Your task to perform on an android device: Open the calendar and show me this week's events? Image 0: 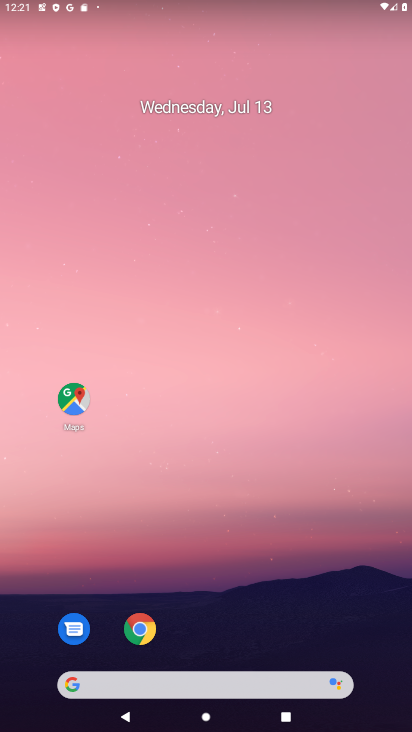
Step 0: click (218, 229)
Your task to perform on an android device: Open the calendar and show me this week's events? Image 1: 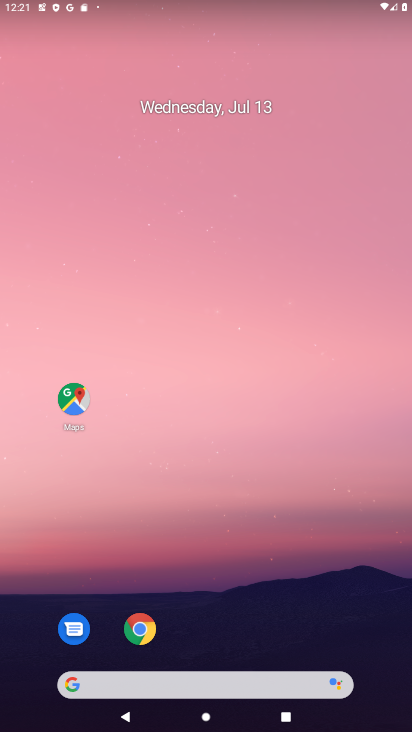
Step 1: drag from (282, 611) to (281, 158)
Your task to perform on an android device: Open the calendar and show me this week's events? Image 2: 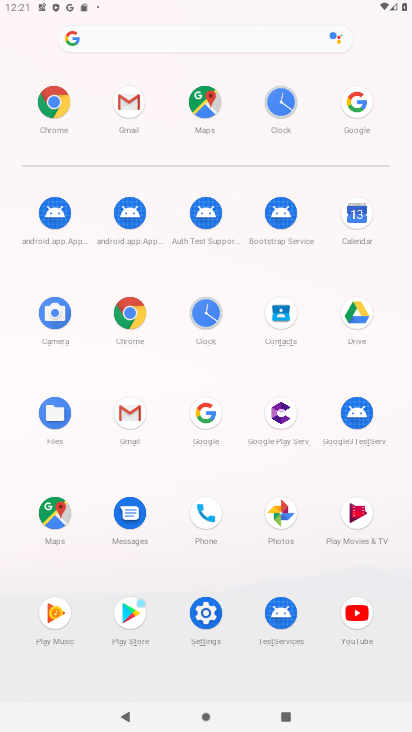
Step 2: drag from (225, 589) to (213, 131)
Your task to perform on an android device: Open the calendar and show me this week's events? Image 3: 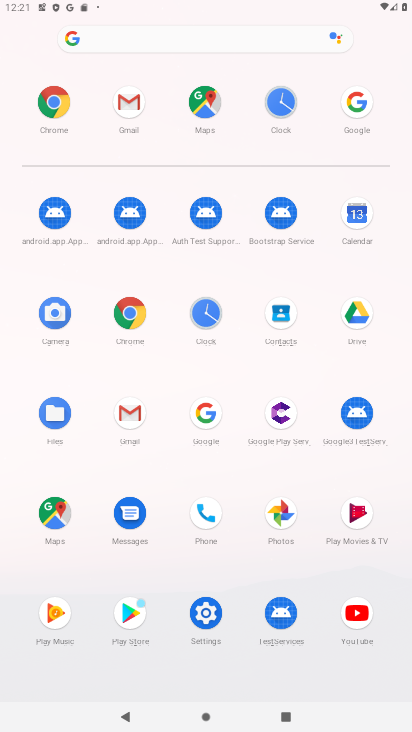
Step 3: click (367, 204)
Your task to perform on an android device: Open the calendar and show me this week's events? Image 4: 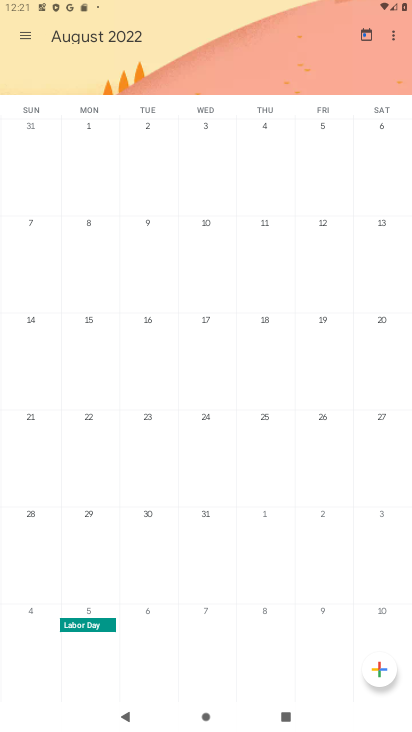
Step 4: drag from (24, 252) to (402, 303)
Your task to perform on an android device: Open the calendar and show me this week's events? Image 5: 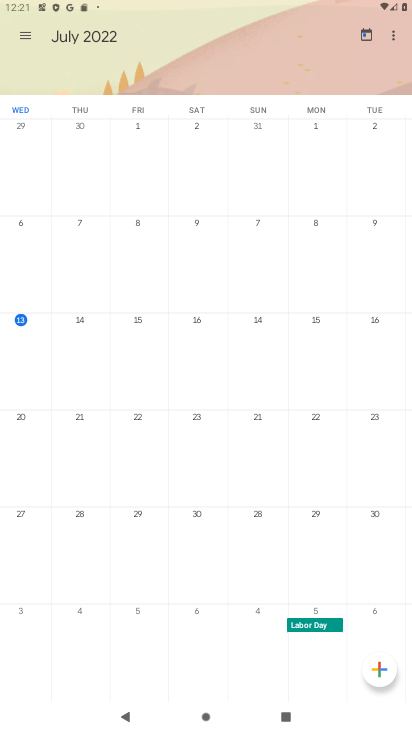
Step 5: drag from (390, 271) to (380, 235)
Your task to perform on an android device: Open the calendar and show me this week's events? Image 6: 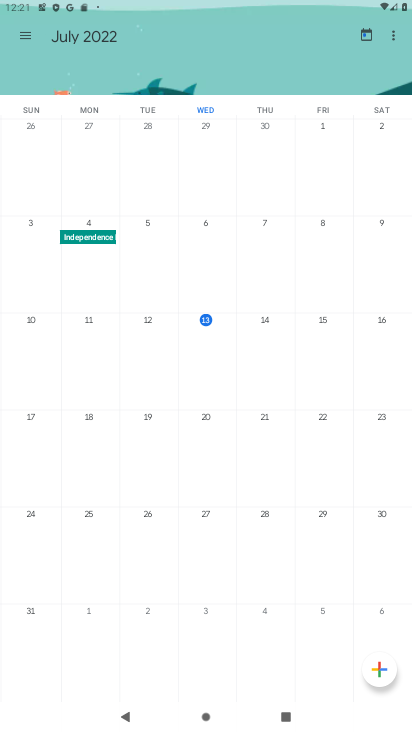
Step 6: click (19, 27)
Your task to perform on an android device: Open the calendar and show me this week's events? Image 7: 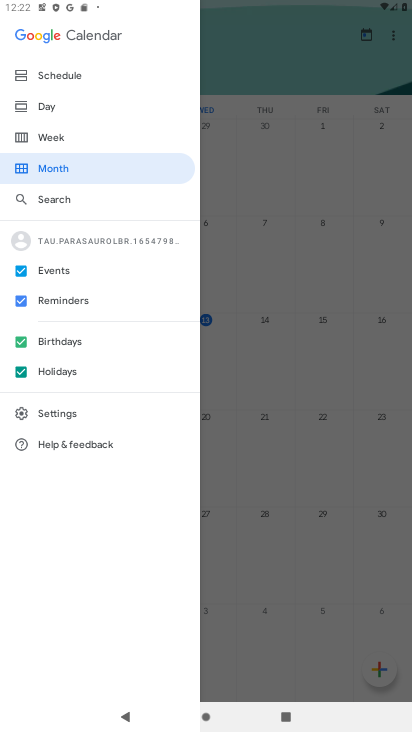
Step 7: click (65, 137)
Your task to perform on an android device: Open the calendar and show me this week's events? Image 8: 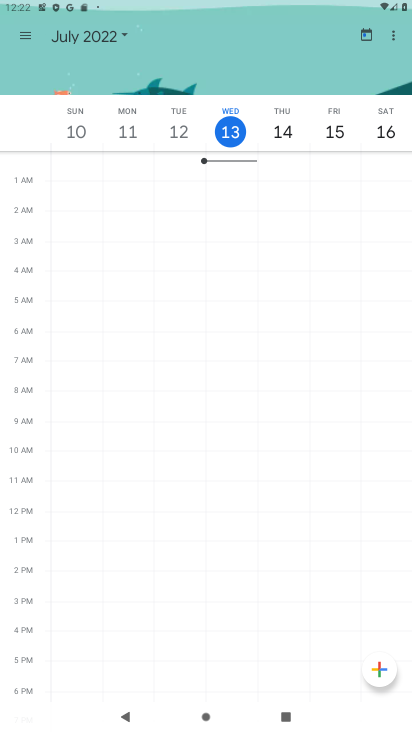
Step 8: task complete